Your task to perform on an android device: open app "Instagram" Image 0: 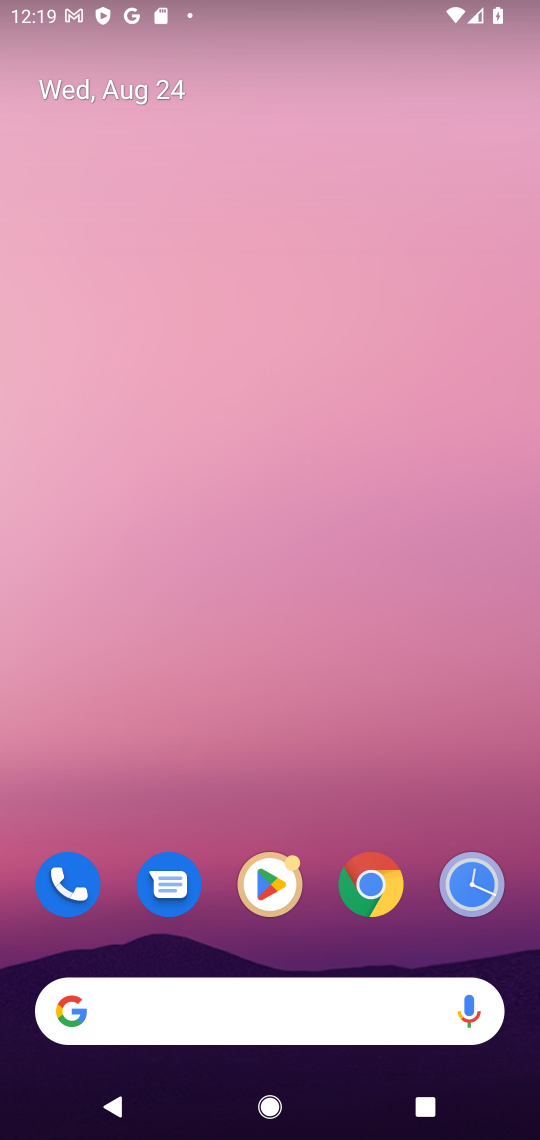
Step 0: drag from (236, 1014) to (313, 325)
Your task to perform on an android device: open app "Instagram" Image 1: 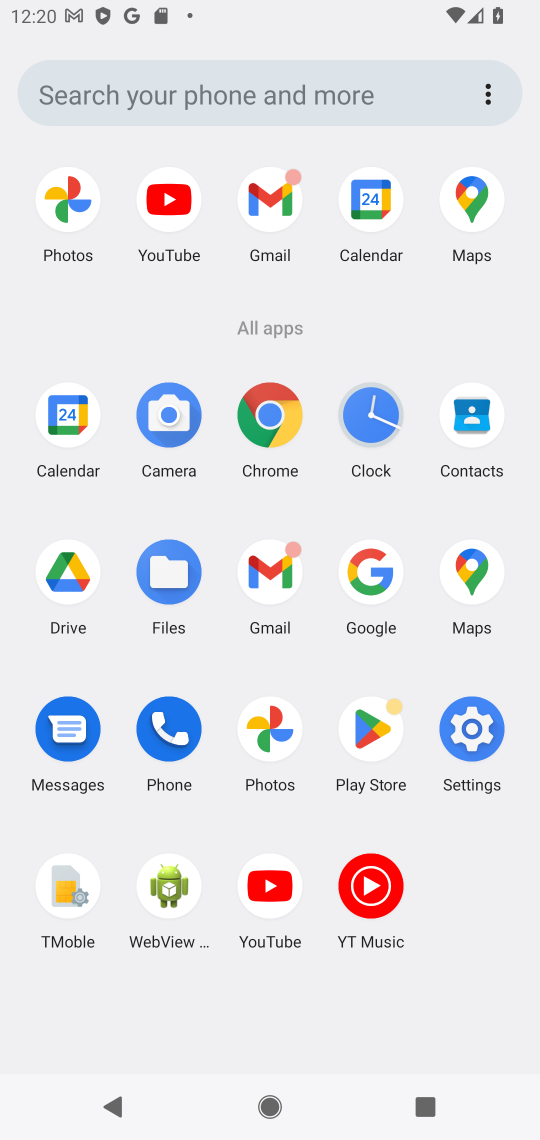
Step 1: click (368, 729)
Your task to perform on an android device: open app "Instagram" Image 2: 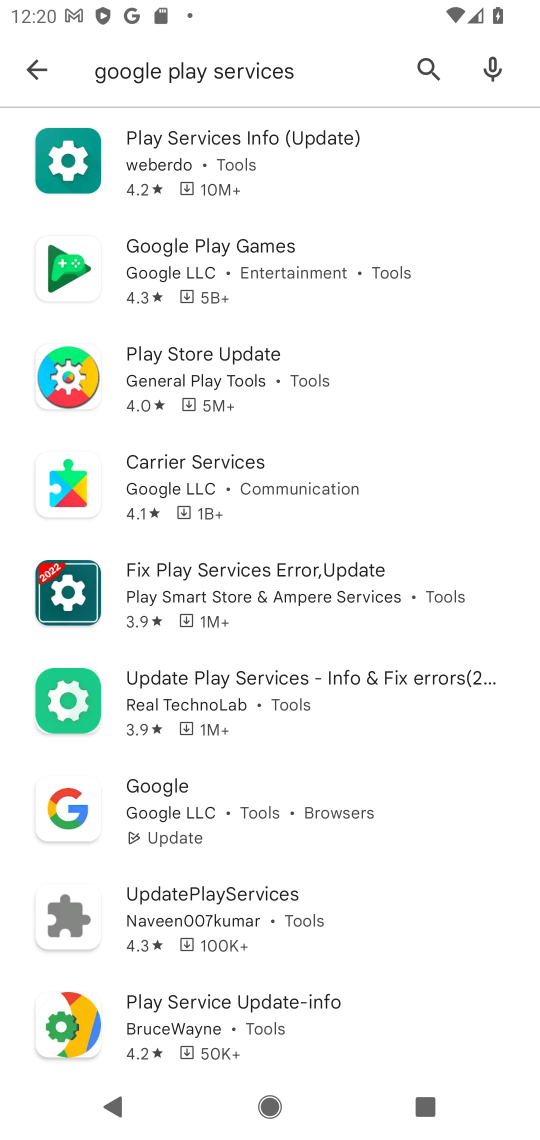
Step 2: press back button
Your task to perform on an android device: open app "Instagram" Image 3: 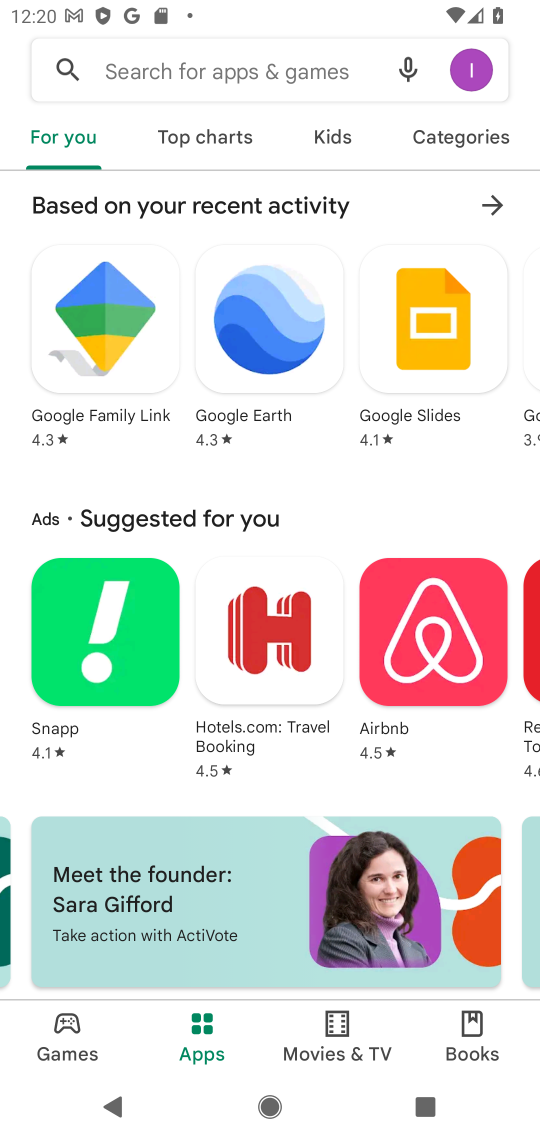
Step 3: click (266, 69)
Your task to perform on an android device: open app "Instagram" Image 4: 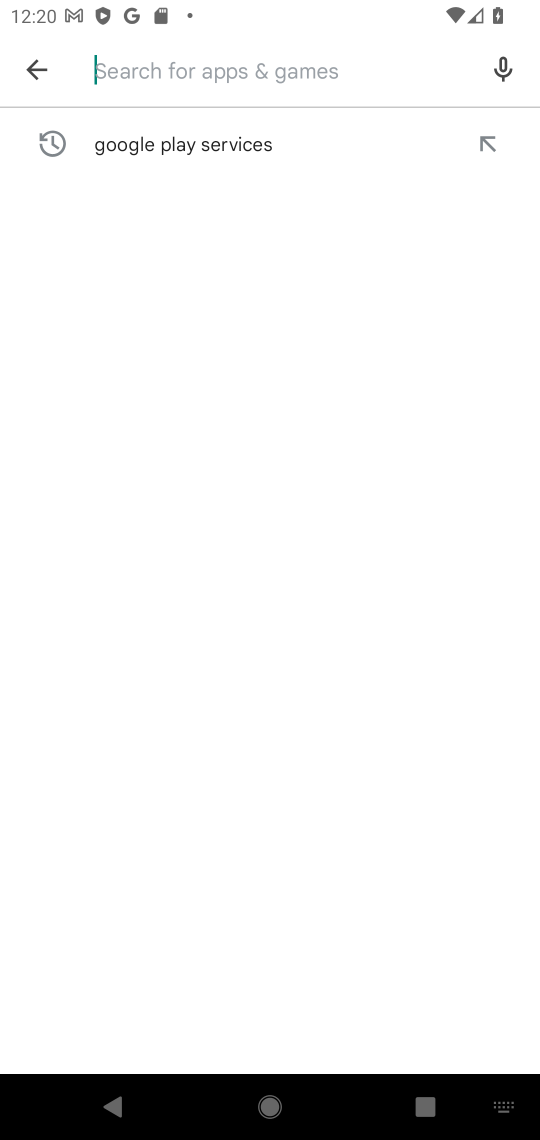
Step 4: type "Instagram"
Your task to perform on an android device: open app "Instagram" Image 5: 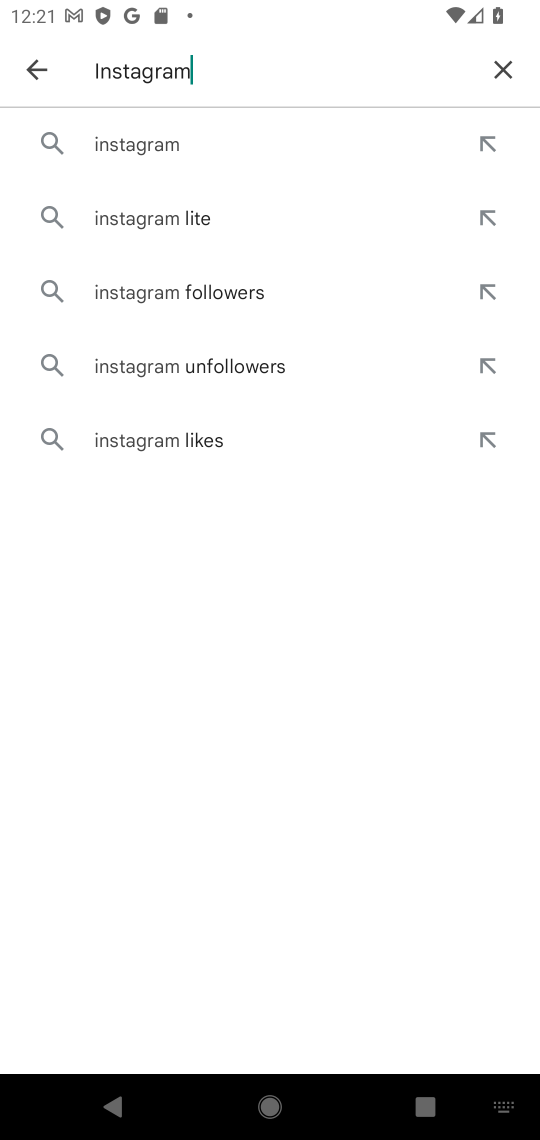
Step 5: click (148, 148)
Your task to perform on an android device: open app "Instagram" Image 6: 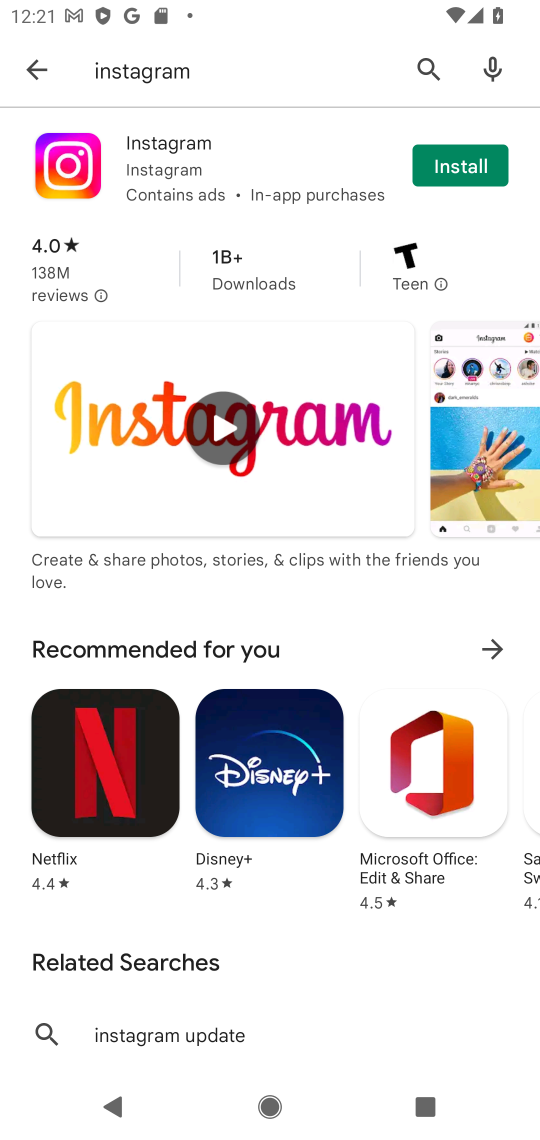
Step 6: task complete